Your task to perform on an android device: Open accessibility settings Image 0: 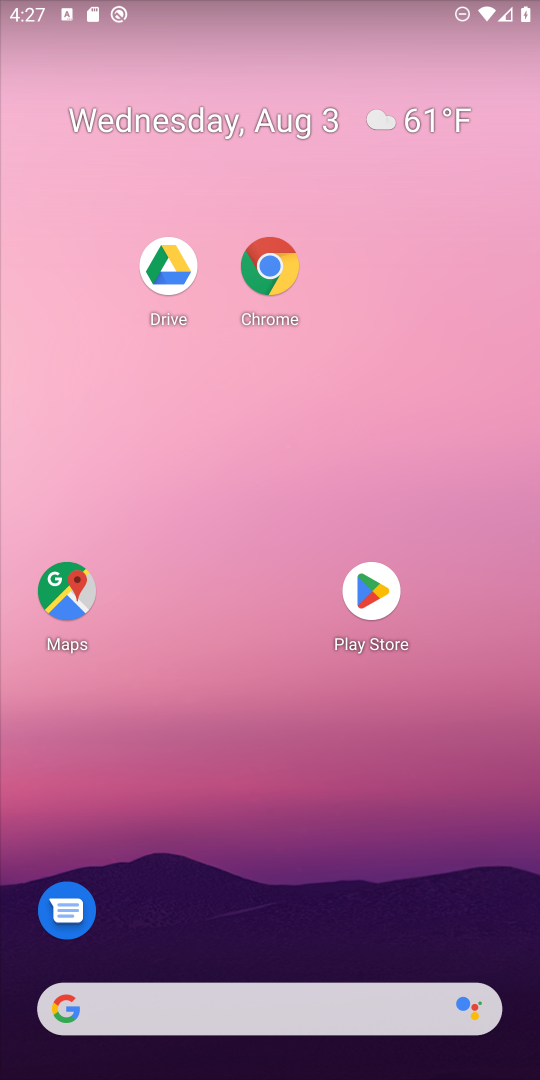
Step 0: drag from (245, 775) to (239, 51)
Your task to perform on an android device: Open accessibility settings Image 1: 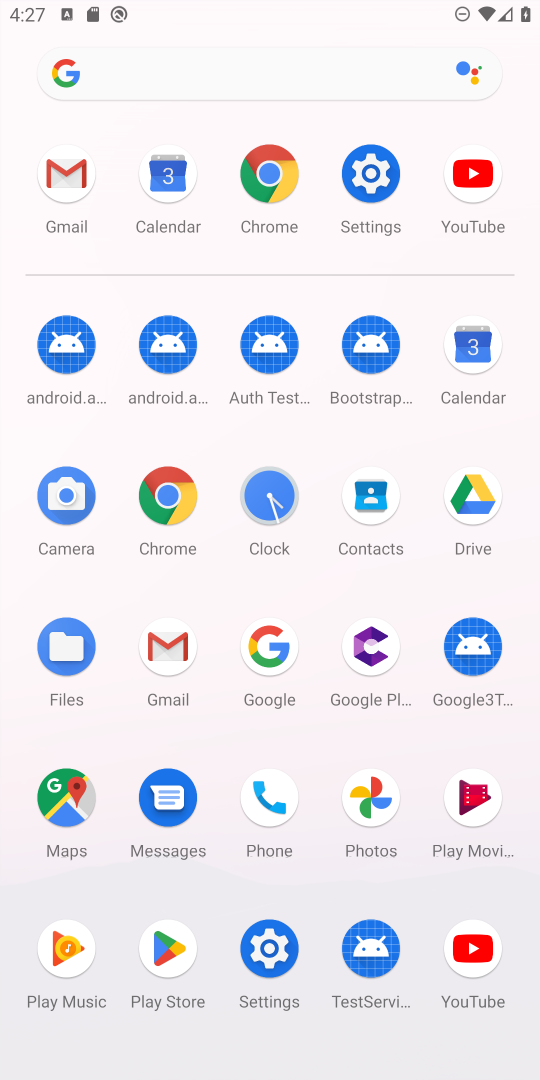
Step 1: click (384, 174)
Your task to perform on an android device: Open accessibility settings Image 2: 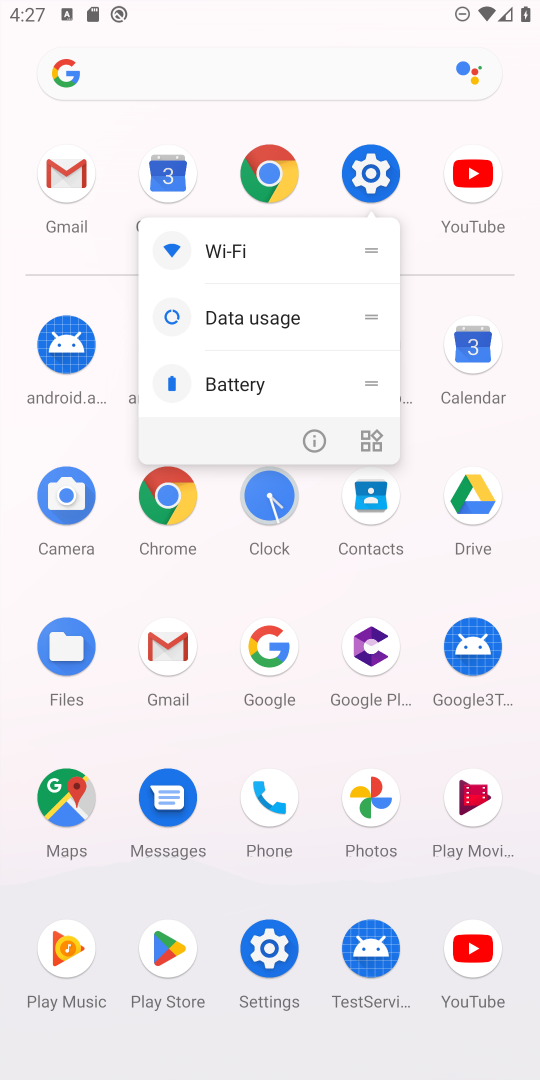
Step 2: click (360, 187)
Your task to perform on an android device: Open accessibility settings Image 3: 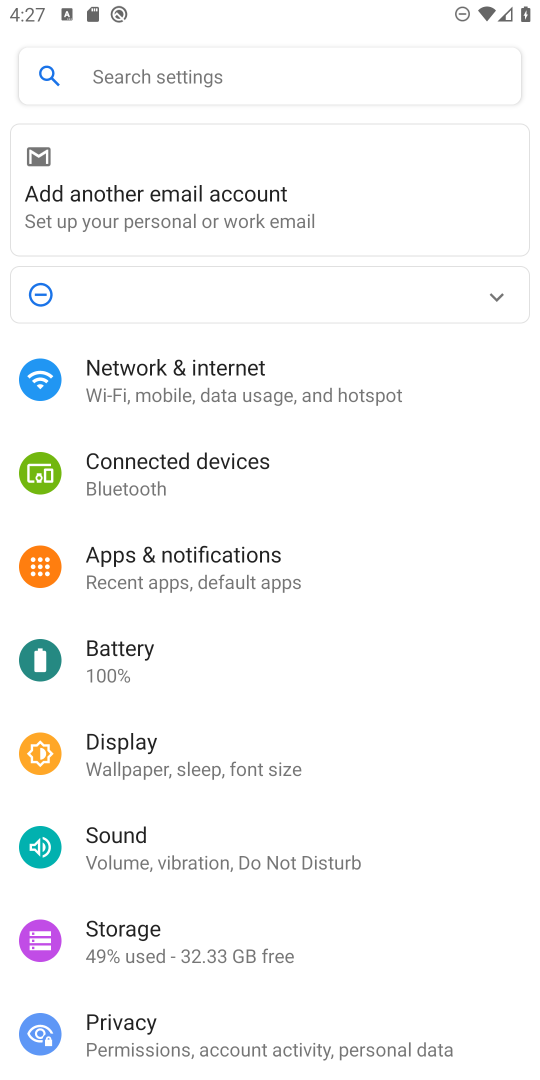
Step 3: drag from (209, 1012) to (280, 82)
Your task to perform on an android device: Open accessibility settings Image 4: 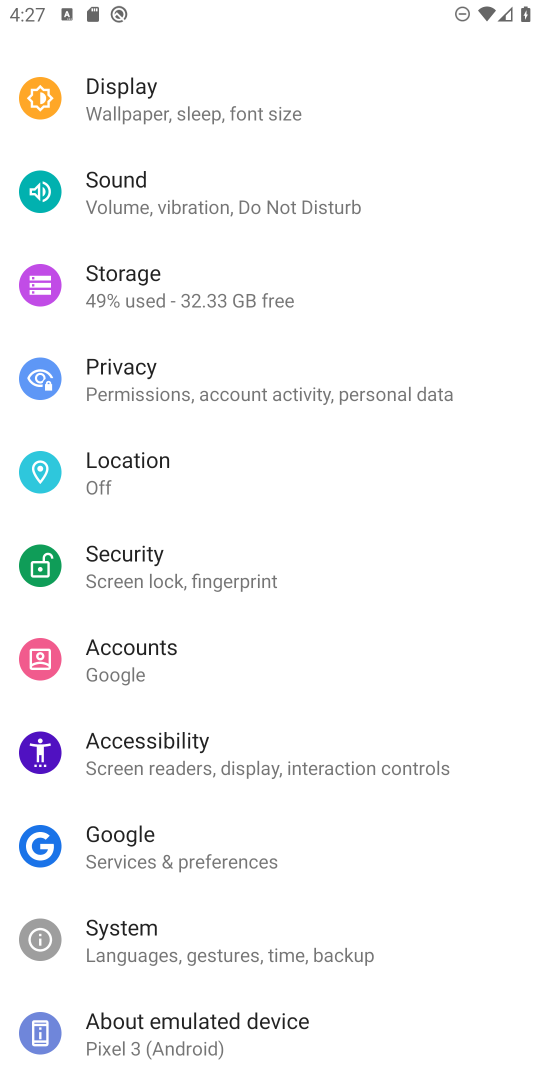
Step 4: click (176, 758)
Your task to perform on an android device: Open accessibility settings Image 5: 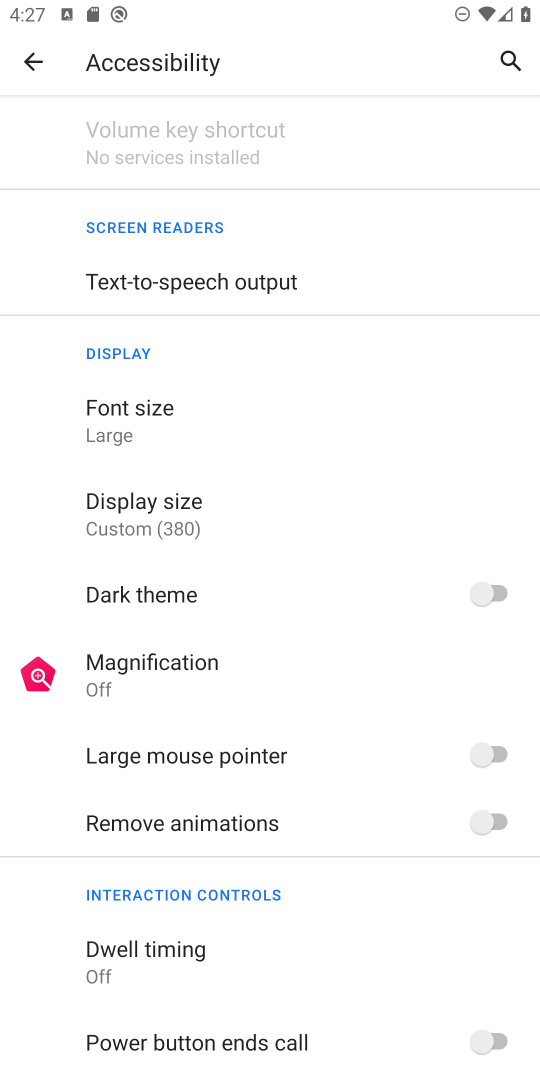
Step 5: task complete